Your task to perform on an android device: toggle show notifications on the lock screen Image 0: 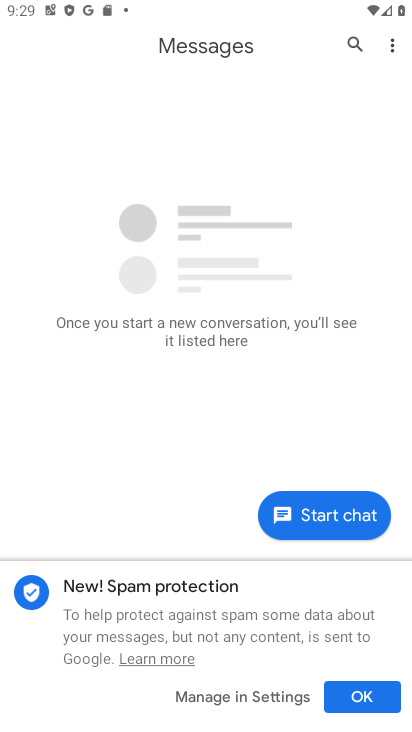
Step 0: press home button
Your task to perform on an android device: toggle show notifications on the lock screen Image 1: 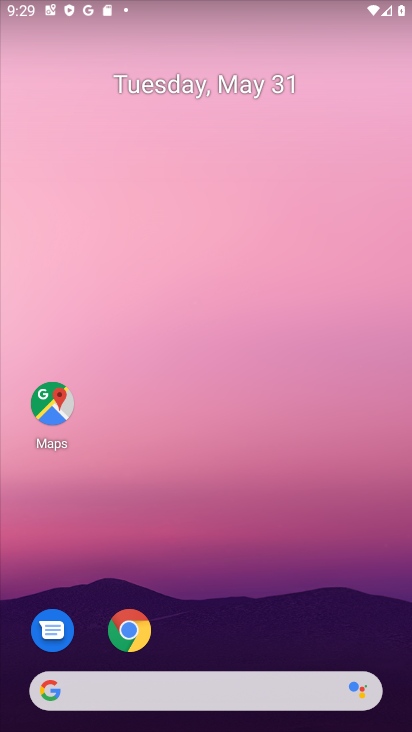
Step 1: drag from (76, 728) to (77, 212)
Your task to perform on an android device: toggle show notifications on the lock screen Image 2: 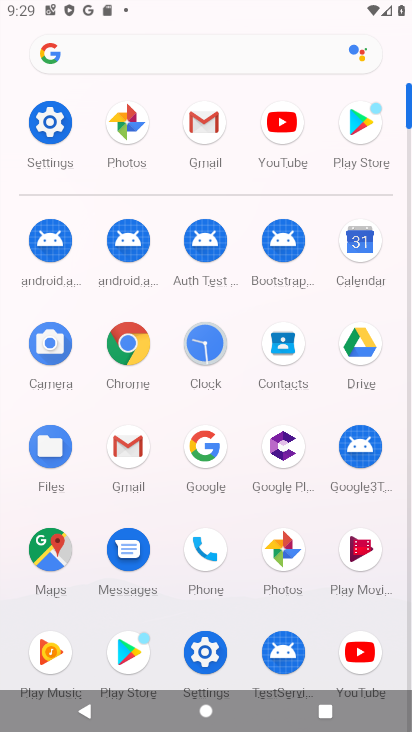
Step 2: click (41, 120)
Your task to perform on an android device: toggle show notifications on the lock screen Image 3: 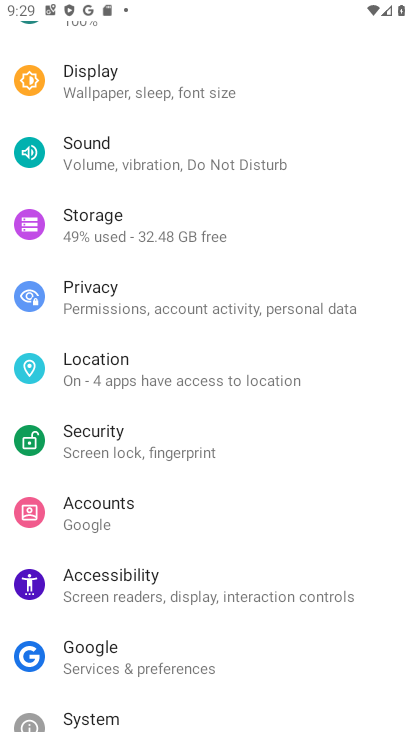
Step 3: drag from (233, 112) to (218, 611)
Your task to perform on an android device: toggle show notifications on the lock screen Image 4: 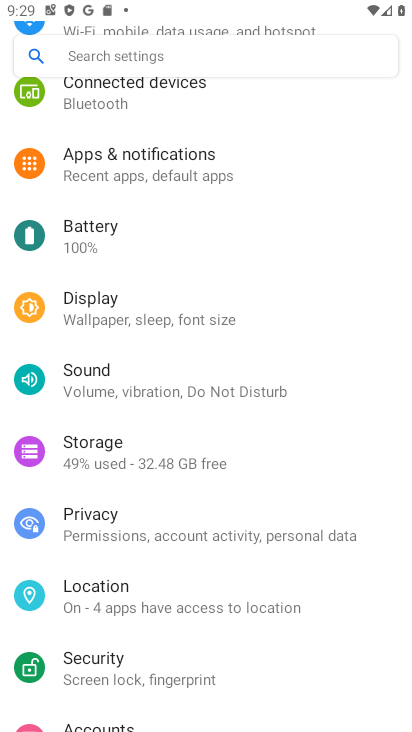
Step 4: click (146, 175)
Your task to perform on an android device: toggle show notifications on the lock screen Image 5: 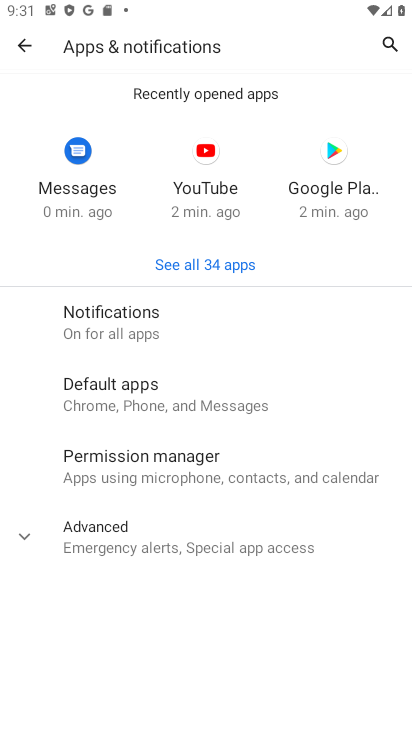
Step 5: click (177, 332)
Your task to perform on an android device: toggle show notifications on the lock screen Image 6: 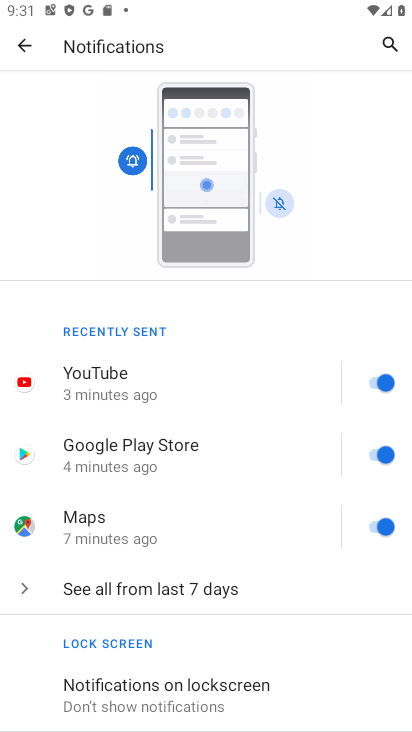
Step 6: click (147, 717)
Your task to perform on an android device: toggle show notifications on the lock screen Image 7: 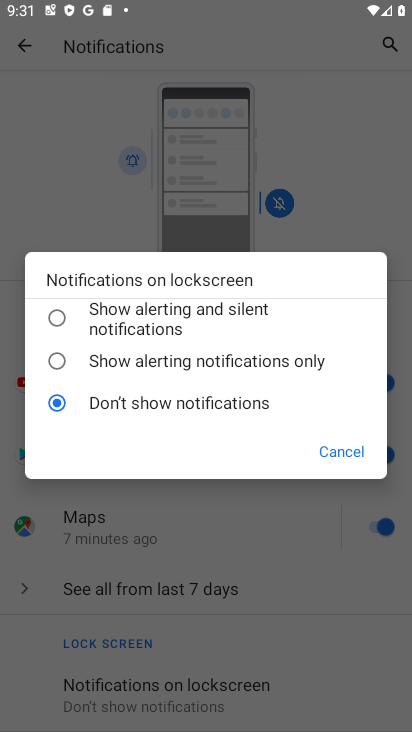
Step 7: click (223, 314)
Your task to perform on an android device: toggle show notifications on the lock screen Image 8: 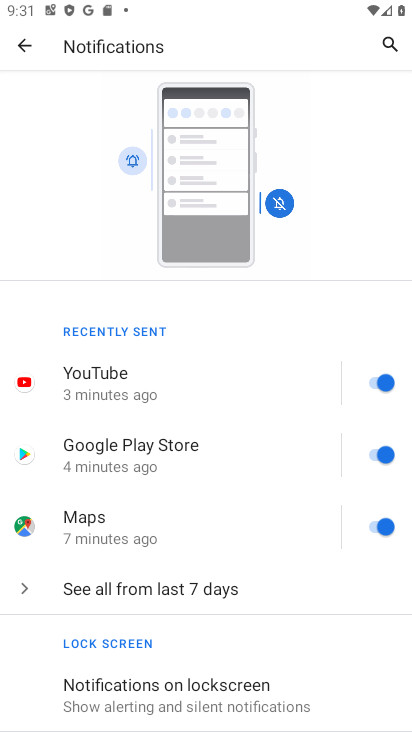
Step 8: task complete